Your task to perform on an android device: change your default location settings in chrome Image 0: 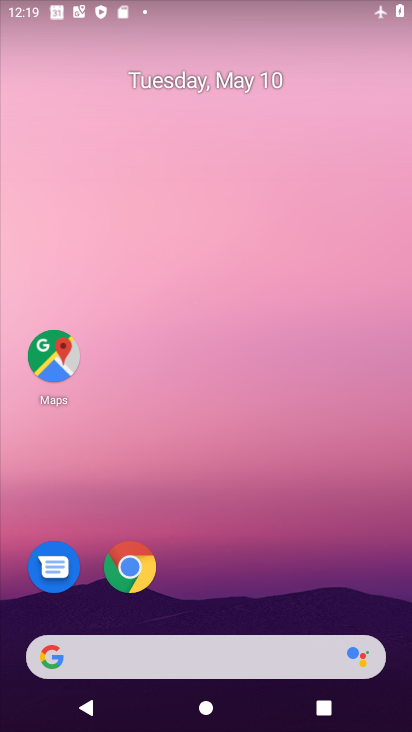
Step 0: drag from (398, 644) to (308, 109)
Your task to perform on an android device: change your default location settings in chrome Image 1: 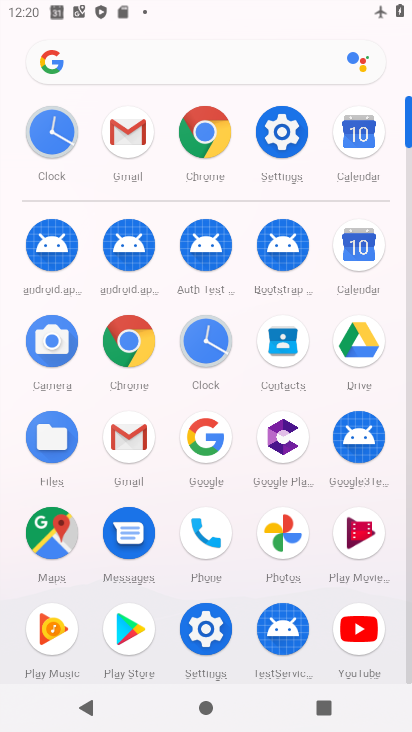
Step 1: click (221, 137)
Your task to perform on an android device: change your default location settings in chrome Image 2: 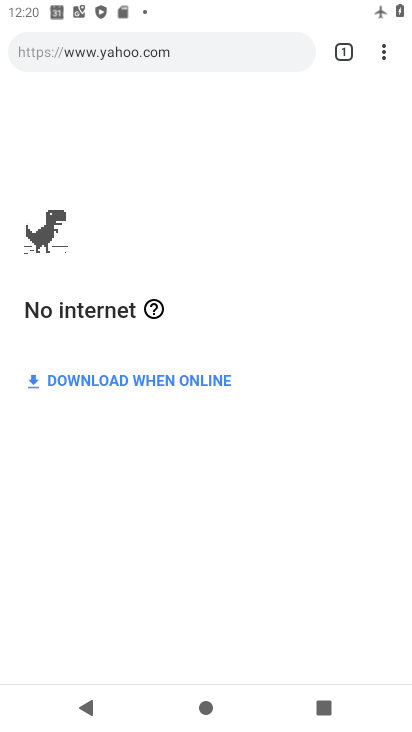
Step 2: click (383, 56)
Your task to perform on an android device: change your default location settings in chrome Image 3: 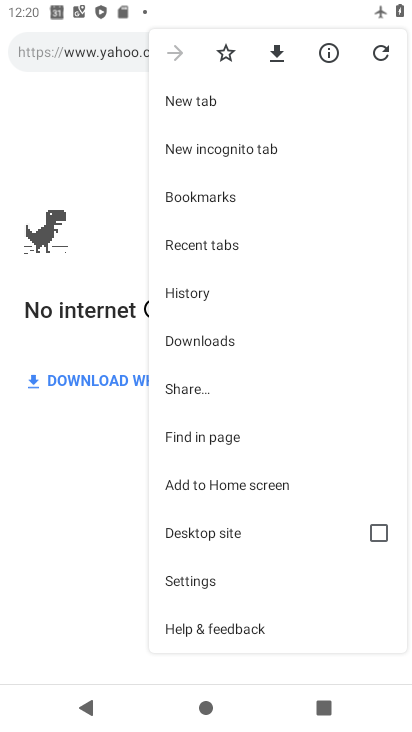
Step 3: click (192, 576)
Your task to perform on an android device: change your default location settings in chrome Image 4: 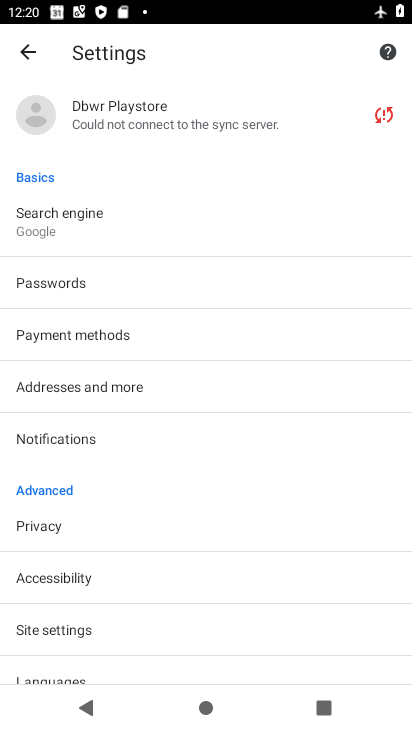
Step 4: click (158, 213)
Your task to perform on an android device: change your default location settings in chrome Image 5: 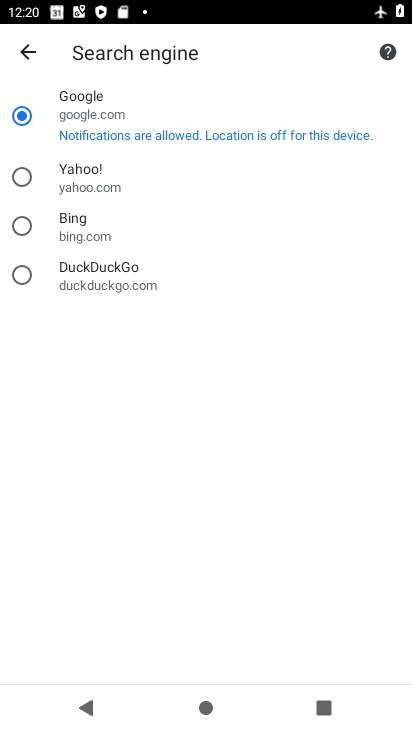
Step 5: click (97, 184)
Your task to perform on an android device: change your default location settings in chrome Image 6: 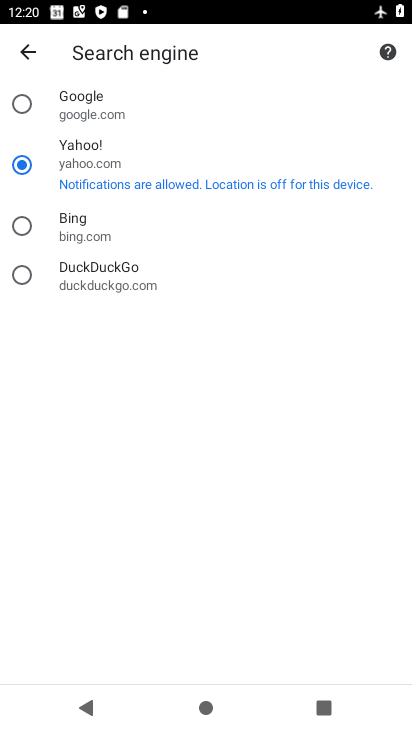
Step 6: task complete